Your task to perform on an android device: add a label to a message in the gmail app Image 0: 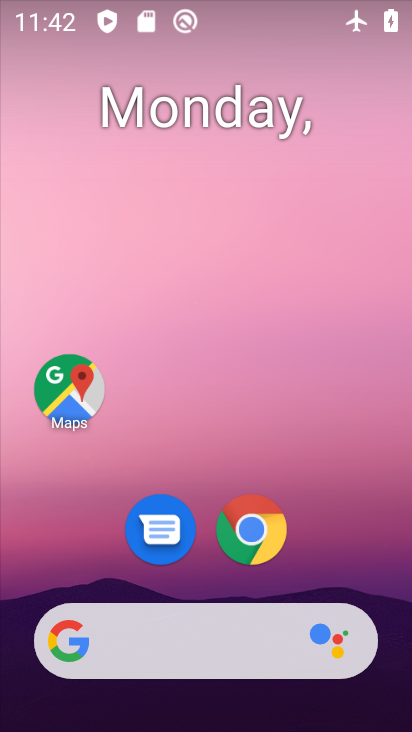
Step 0: drag from (207, 721) to (176, 112)
Your task to perform on an android device: add a label to a message in the gmail app Image 1: 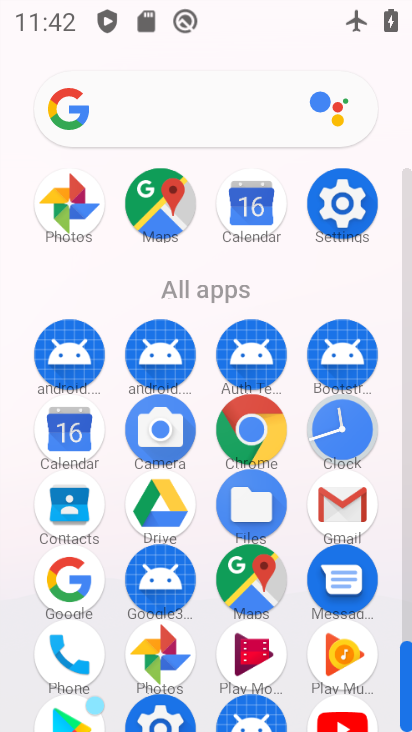
Step 1: click (342, 509)
Your task to perform on an android device: add a label to a message in the gmail app Image 2: 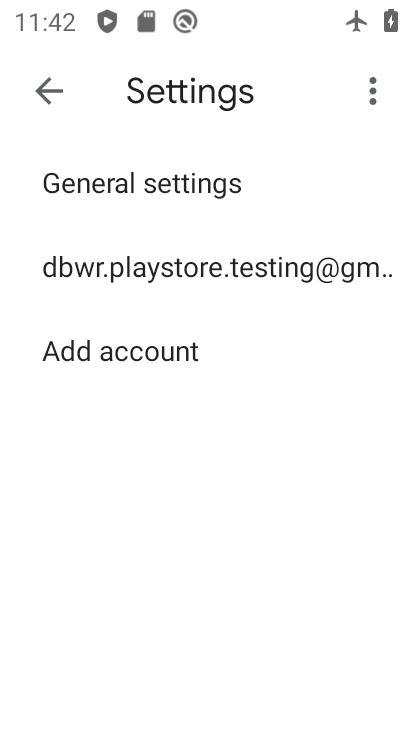
Step 2: click (46, 87)
Your task to perform on an android device: add a label to a message in the gmail app Image 3: 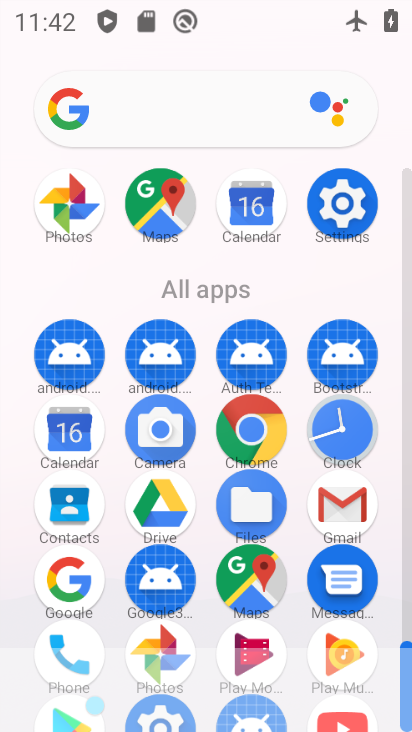
Step 3: click (347, 509)
Your task to perform on an android device: add a label to a message in the gmail app Image 4: 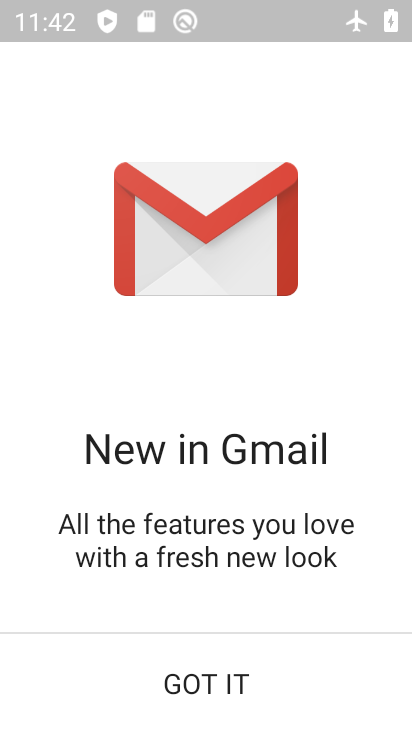
Step 4: click (224, 682)
Your task to perform on an android device: add a label to a message in the gmail app Image 5: 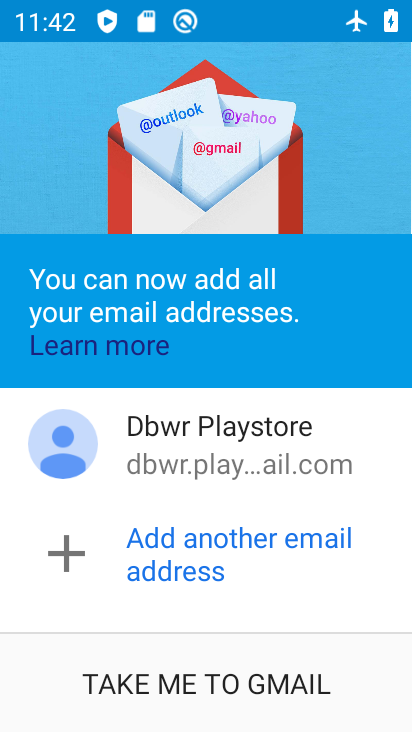
Step 5: click (224, 675)
Your task to perform on an android device: add a label to a message in the gmail app Image 6: 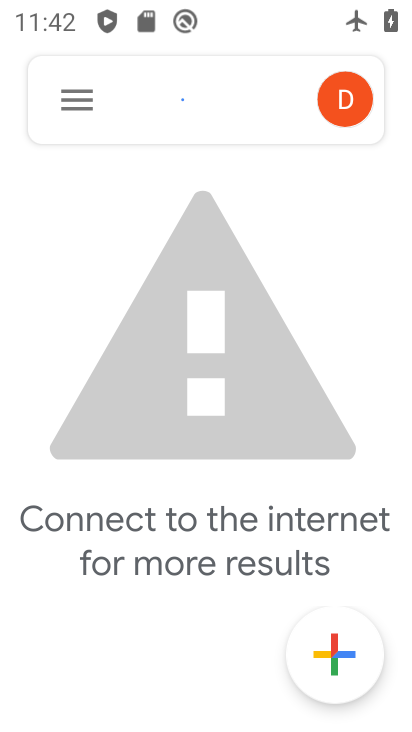
Step 6: task complete